Your task to perform on an android device: find which apps use the phone's location Image 0: 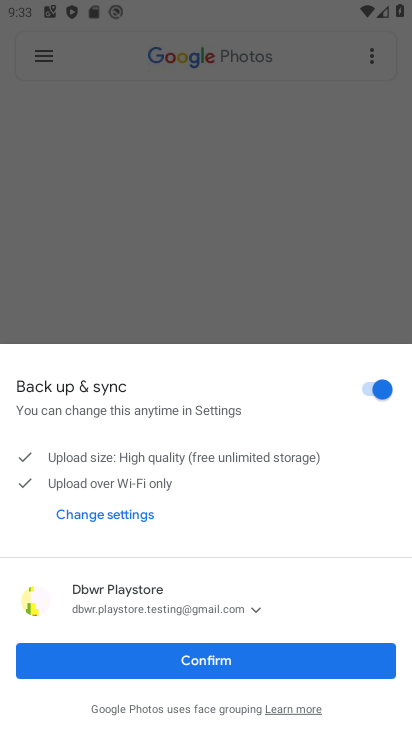
Step 0: press home button
Your task to perform on an android device: find which apps use the phone's location Image 1: 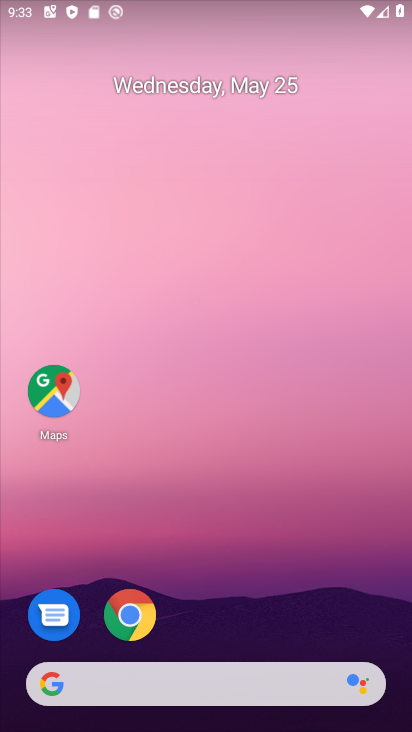
Step 1: drag from (239, 589) to (248, 9)
Your task to perform on an android device: find which apps use the phone's location Image 2: 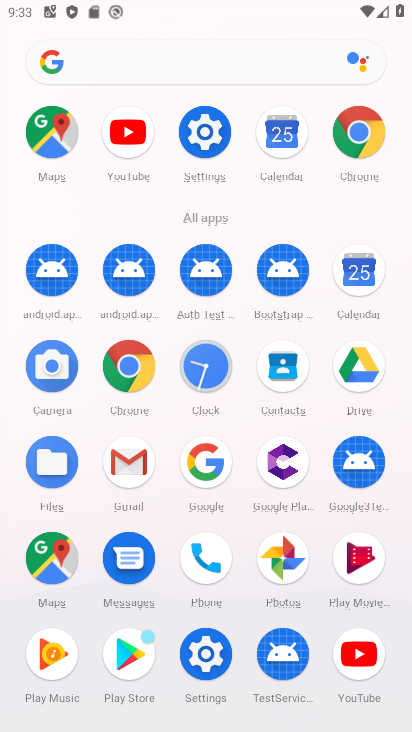
Step 2: click (204, 131)
Your task to perform on an android device: find which apps use the phone's location Image 3: 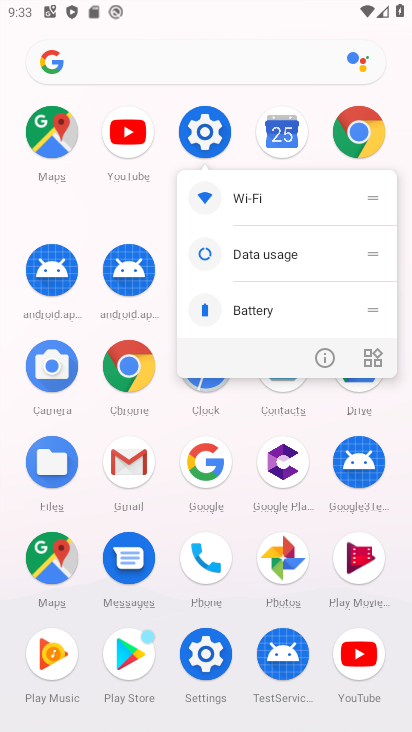
Step 3: click (204, 128)
Your task to perform on an android device: find which apps use the phone's location Image 4: 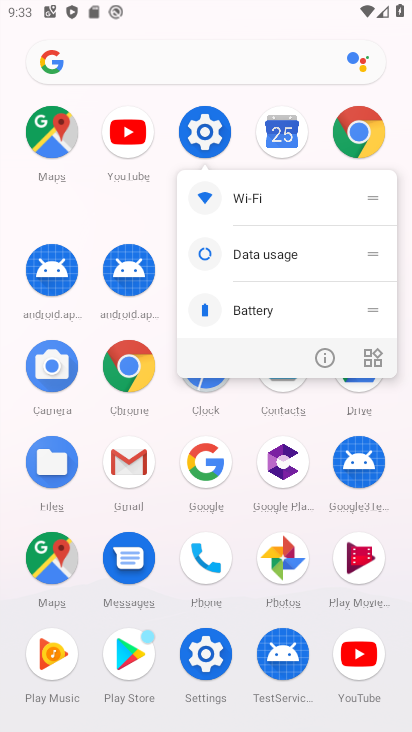
Step 4: click (204, 111)
Your task to perform on an android device: find which apps use the phone's location Image 5: 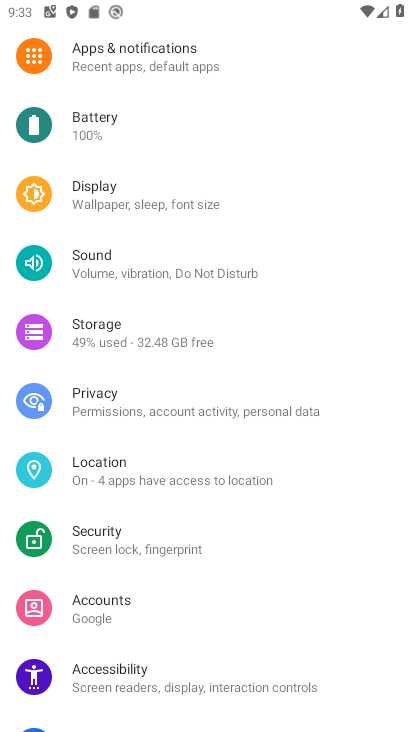
Step 5: click (193, 471)
Your task to perform on an android device: find which apps use the phone's location Image 6: 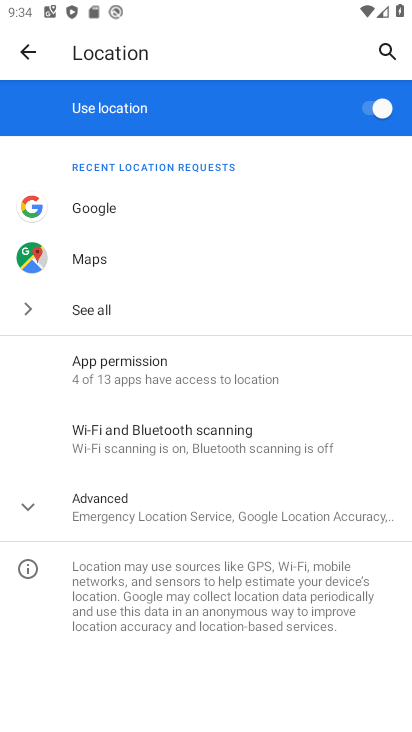
Step 6: click (190, 376)
Your task to perform on an android device: find which apps use the phone's location Image 7: 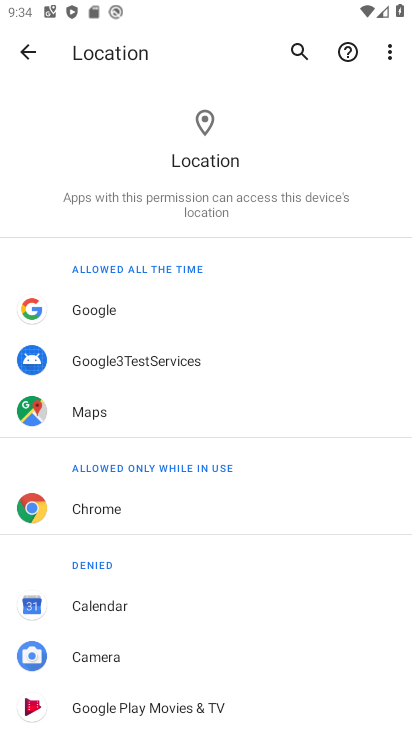
Step 7: task complete